Your task to perform on an android device: turn on sleep mode Image 0: 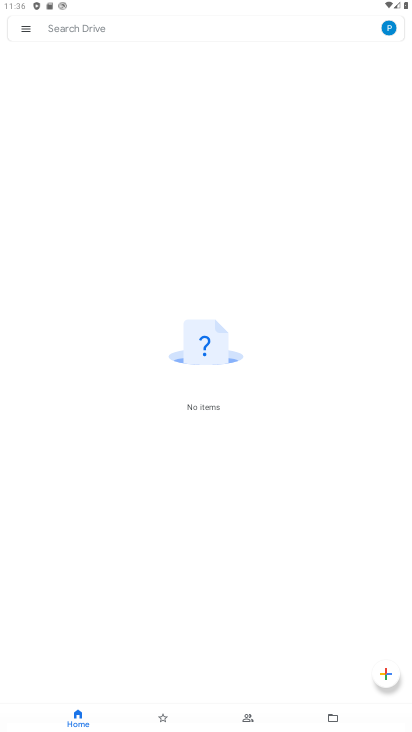
Step 0: press home button
Your task to perform on an android device: turn on sleep mode Image 1: 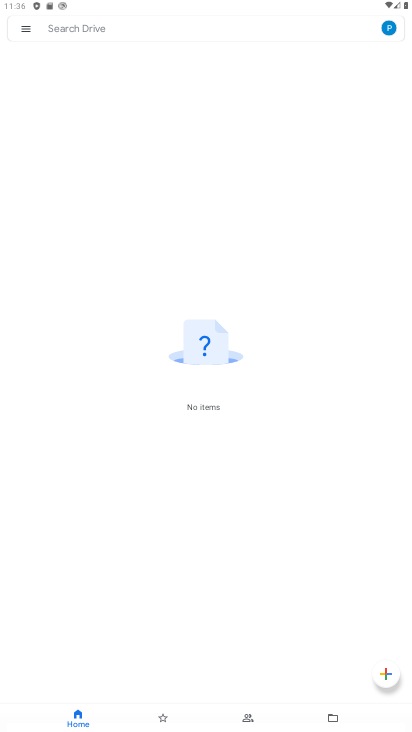
Step 1: press home button
Your task to perform on an android device: turn on sleep mode Image 2: 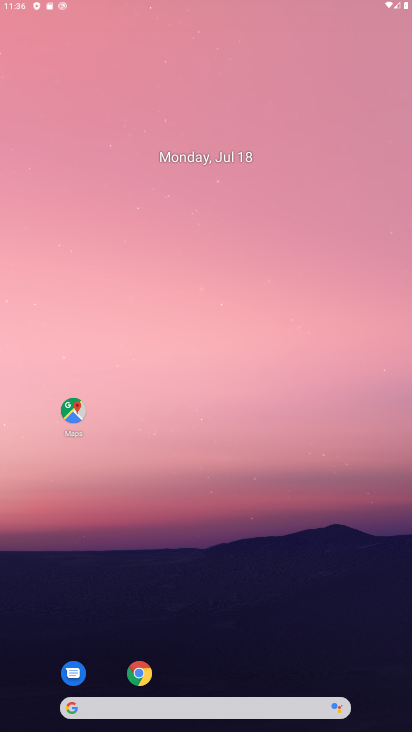
Step 2: press home button
Your task to perform on an android device: turn on sleep mode Image 3: 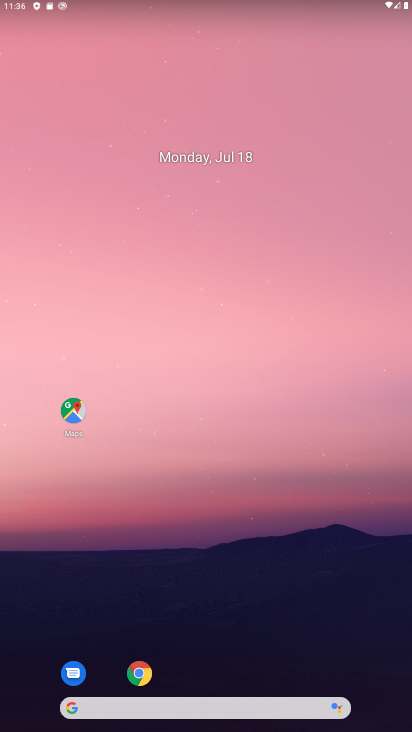
Step 3: drag from (356, 634) to (285, 18)
Your task to perform on an android device: turn on sleep mode Image 4: 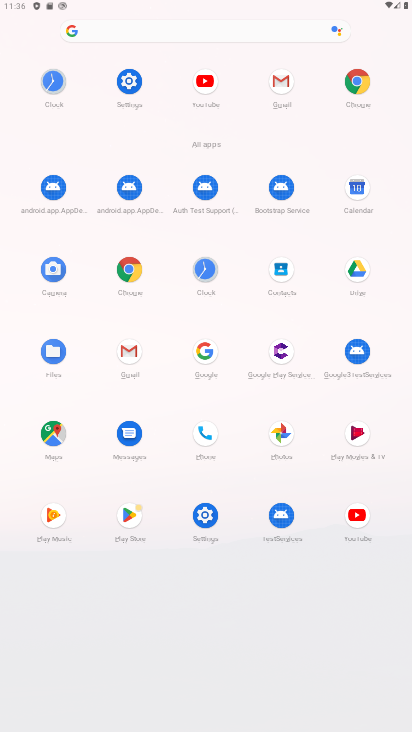
Step 4: click (212, 525)
Your task to perform on an android device: turn on sleep mode Image 5: 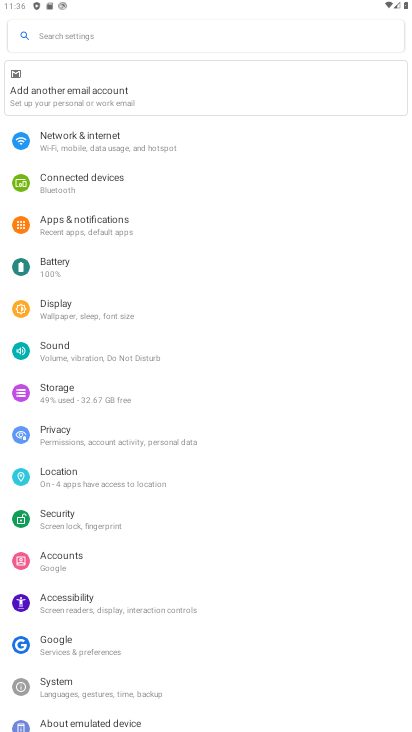
Step 5: click (68, 311)
Your task to perform on an android device: turn on sleep mode Image 6: 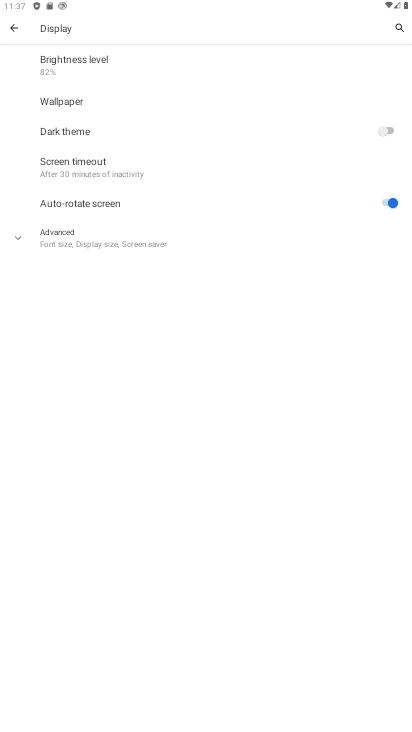
Step 6: task complete